Your task to perform on an android device: turn off airplane mode Image 0: 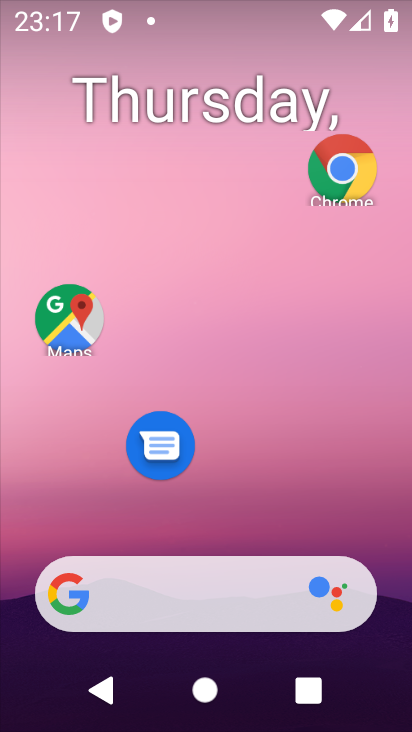
Step 0: click (290, 246)
Your task to perform on an android device: turn off airplane mode Image 1: 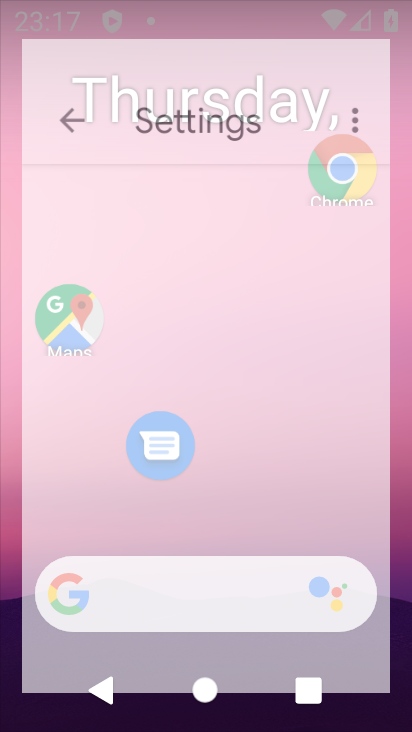
Step 1: drag from (212, 521) to (264, 197)
Your task to perform on an android device: turn off airplane mode Image 2: 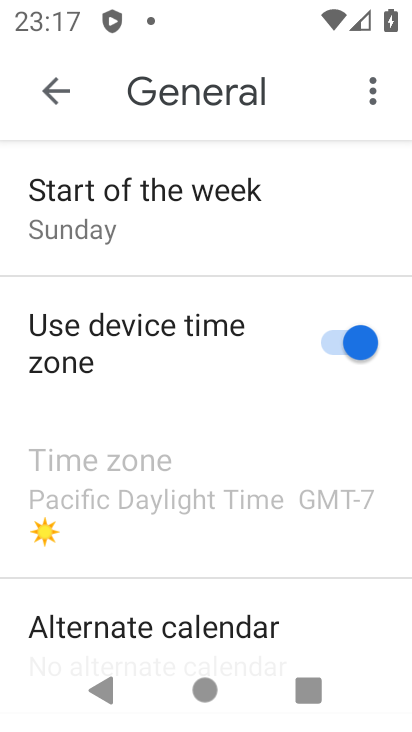
Step 2: press home button
Your task to perform on an android device: turn off airplane mode Image 3: 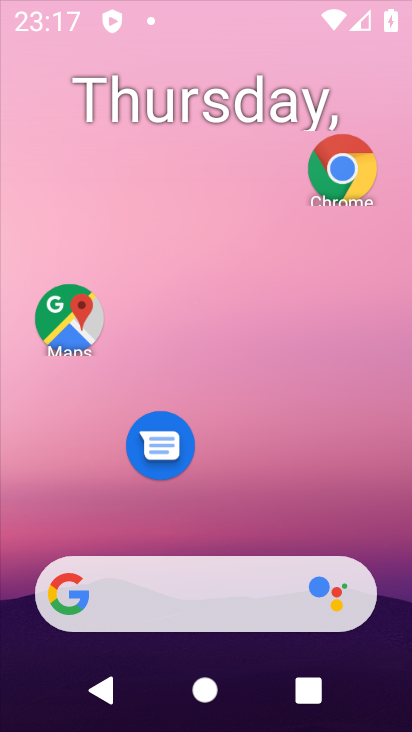
Step 3: drag from (201, 548) to (226, 197)
Your task to perform on an android device: turn off airplane mode Image 4: 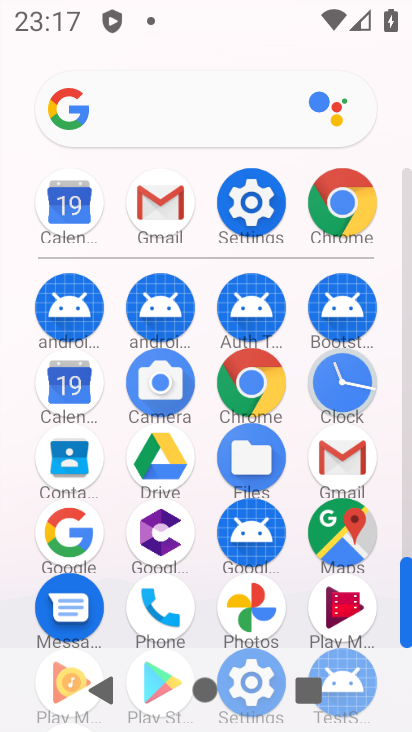
Step 4: click (225, 189)
Your task to perform on an android device: turn off airplane mode Image 5: 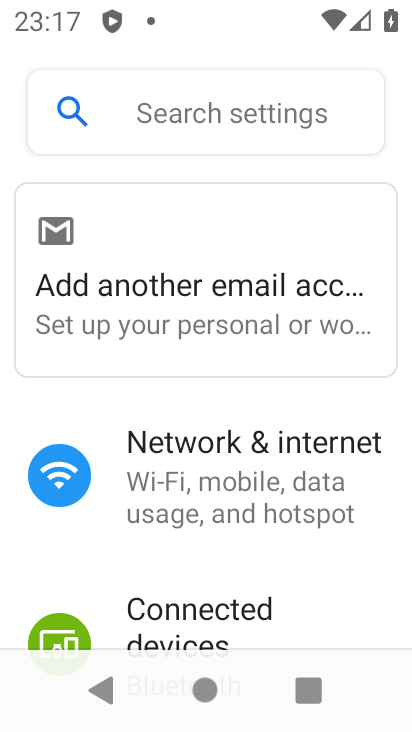
Step 5: drag from (219, 554) to (263, 173)
Your task to perform on an android device: turn off airplane mode Image 6: 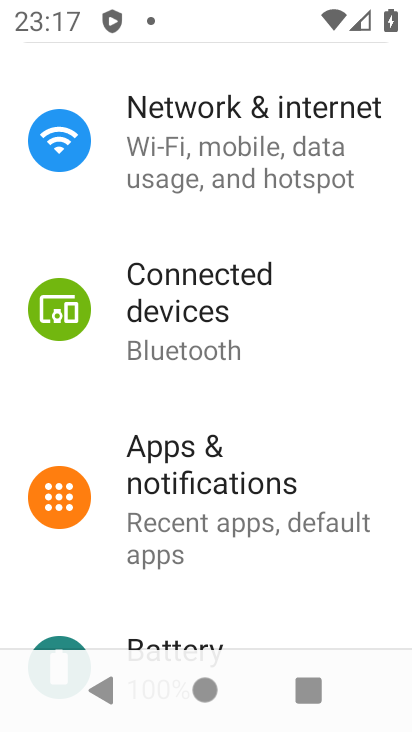
Step 6: click (206, 141)
Your task to perform on an android device: turn off airplane mode Image 7: 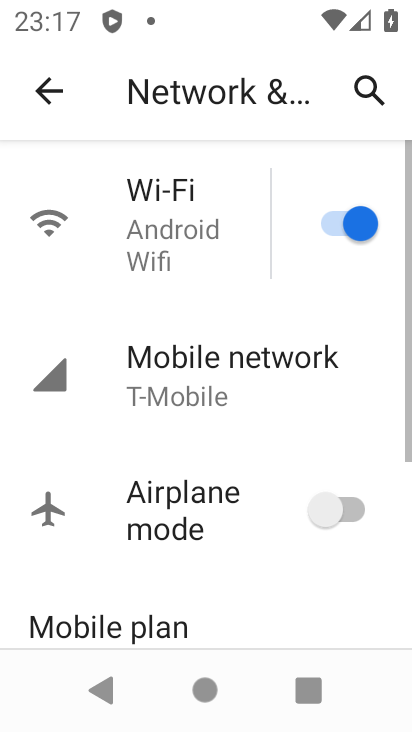
Step 7: task complete